Your task to perform on an android device: Open location settings Image 0: 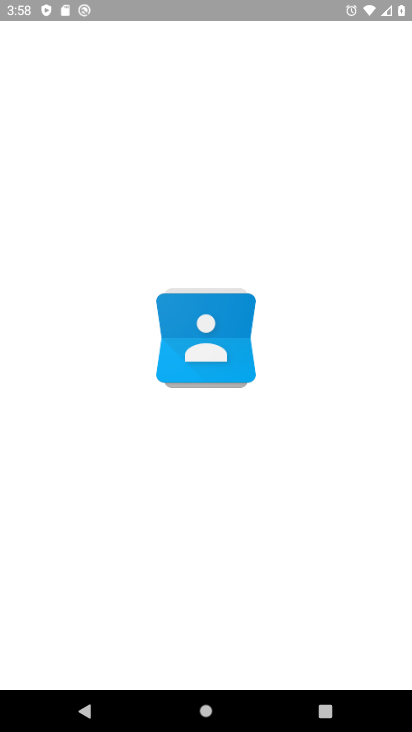
Step 0: click (127, 587)
Your task to perform on an android device: Open location settings Image 1: 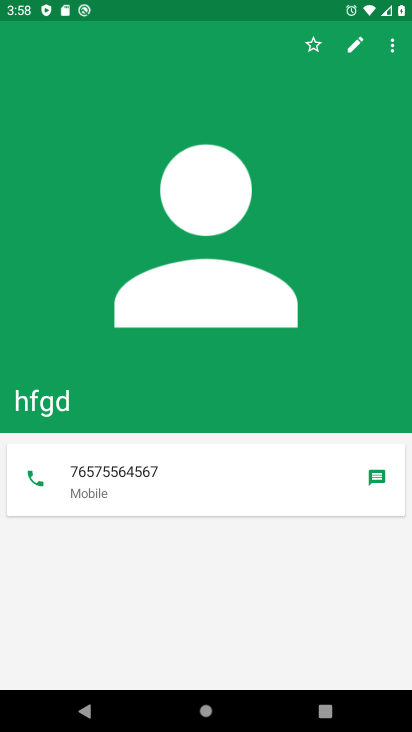
Step 1: press home button
Your task to perform on an android device: Open location settings Image 2: 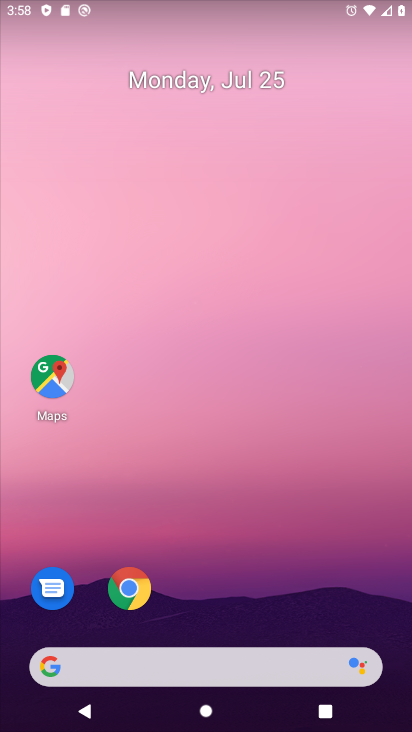
Step 2: drag from (220, 712) to (263, 77)
Your task to perform on an android device: Open location settings Image 3: 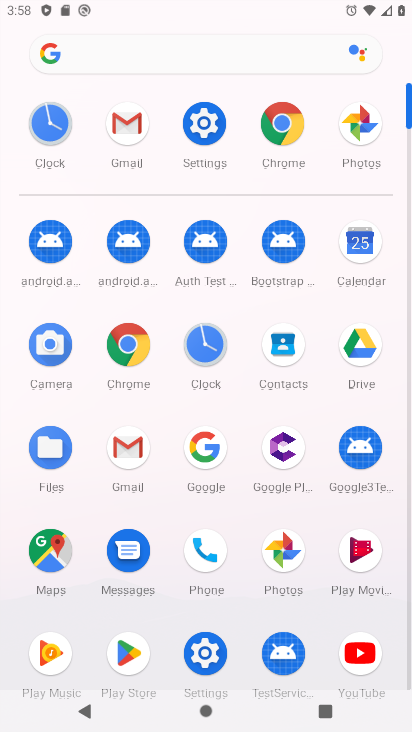
Step 3: click (209, 129)
Your task to perform on an android device: Open location settings Image 4: 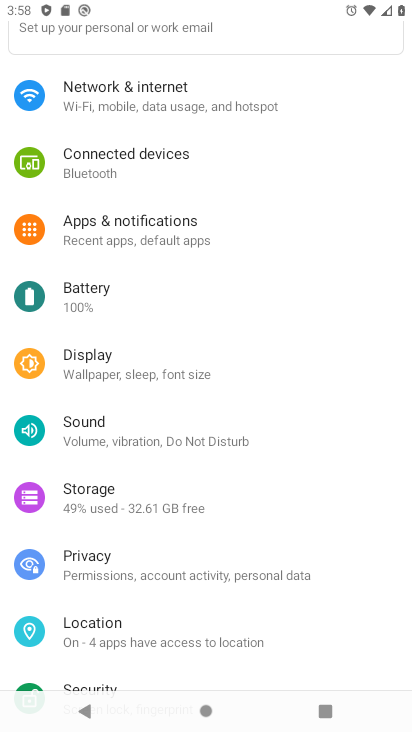
Step 4: click (98, 621)
Your task to perform on an android device: Open location settings Image 5: 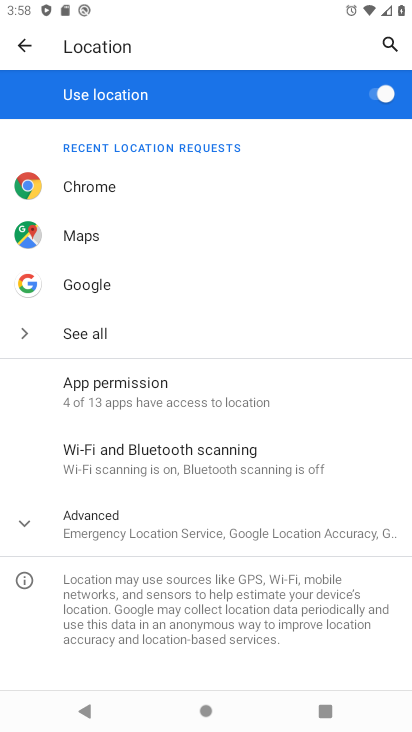
Step 5: task complete